Your task to perform on an android device: toggle data saver in the chrome app Image 0: 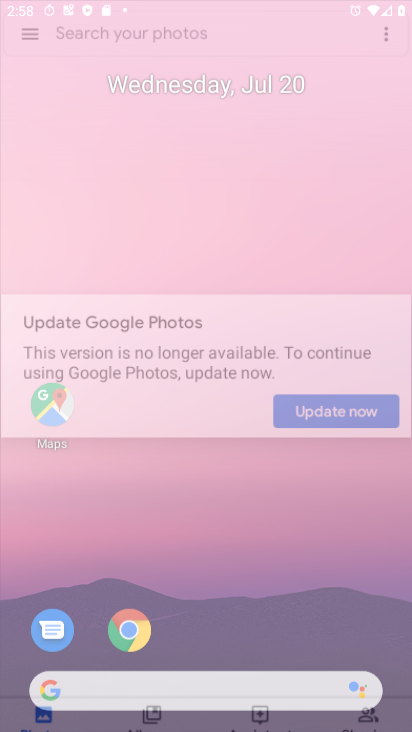
Step 0: press home button
Your task to perform on an android device: toggle data saver in the chrome app Image 1: 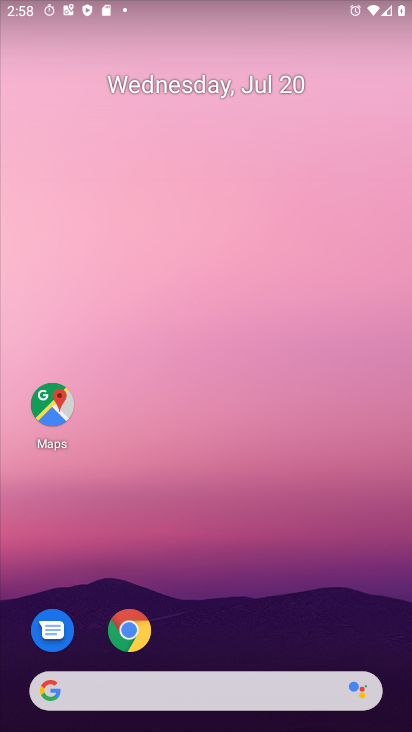
Step 1: press home button
Your task to perform on an android device: toggle data saver in the chrome app Image 2: 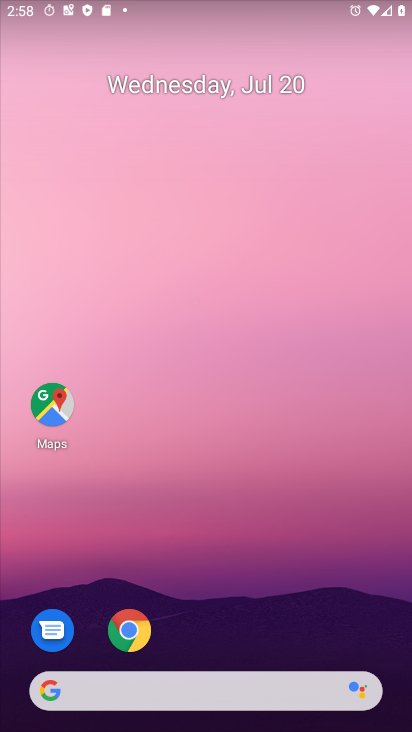
Step 2: click (129, 626)
Your task to perform on an android device: toggle data saver in the chrome app Image 3: 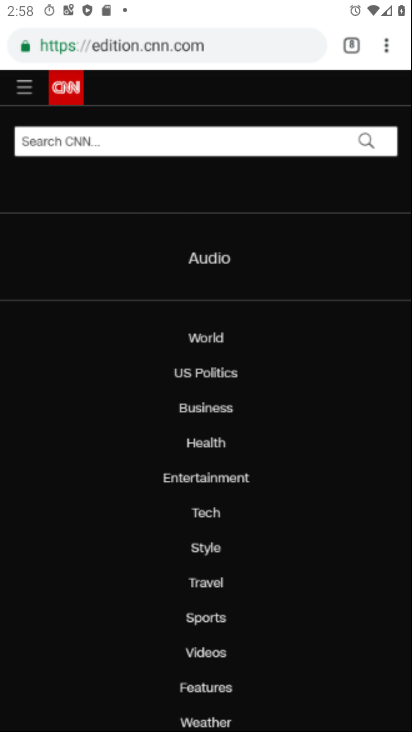
Step 3: drag from (387, 50) to (276, 543)
Your task to perform on an android device: toggle data saver in the chrome app Image 4: 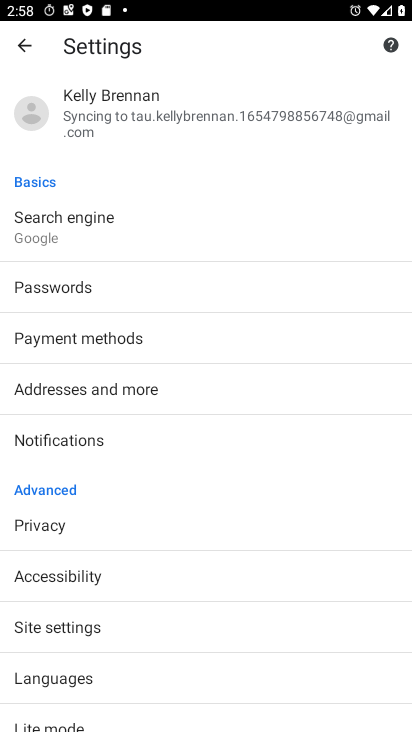
Step 4: drag from (169, 636) to (259, 223)
Your task to perform on an android device: toggle data saver in the chrome app Image 5: 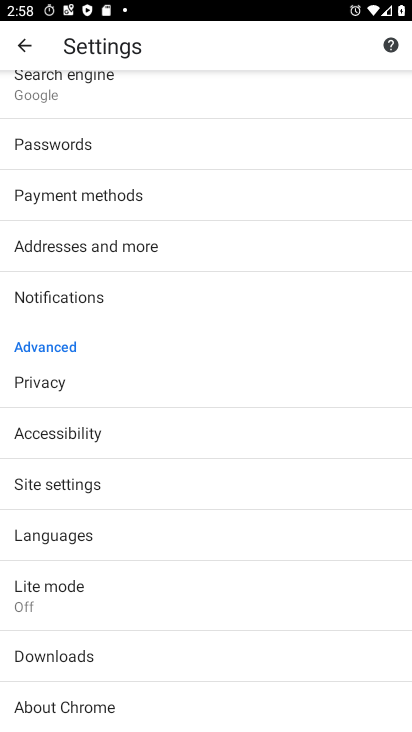
Step 5: click (101, 592)
Your task to perform on an android device: toggle data saver in the chrome app Image 6: 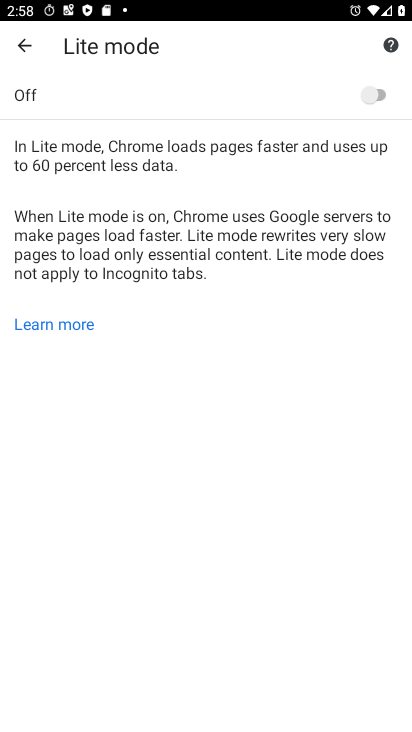
Step 6: click (378, 90)
Your task to perform on an android device: toggle data saver in the chrome app Image 7: 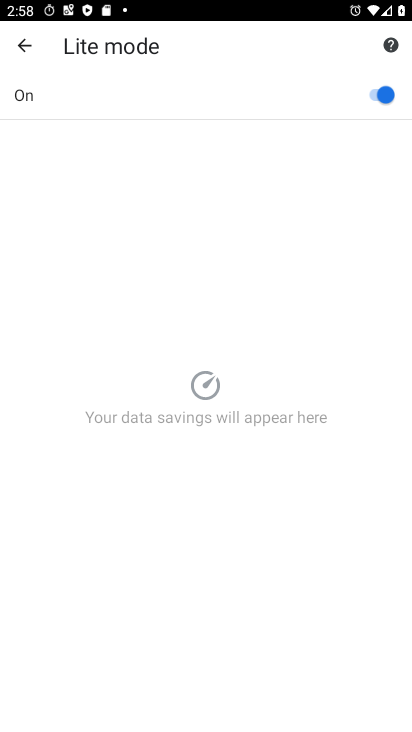
Step 7: task complete